Your task to perform on an android device: turn smart compose on in the gmail app Image 0: 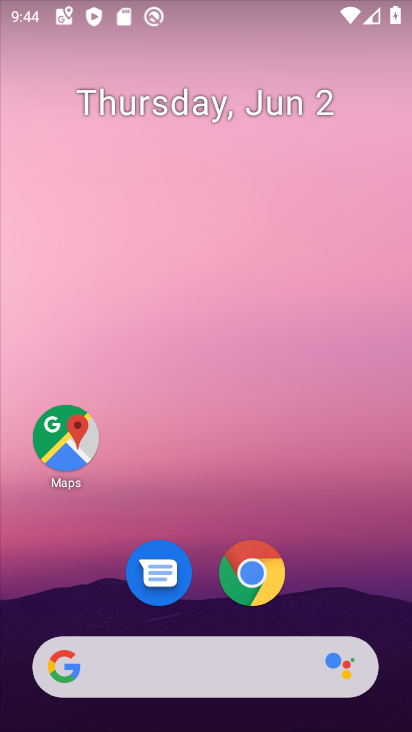
Step 0: drag from (326, 576) to (298, 75)
Your task to perform on an android device: turn smart compose on in the gmail app Image 1: 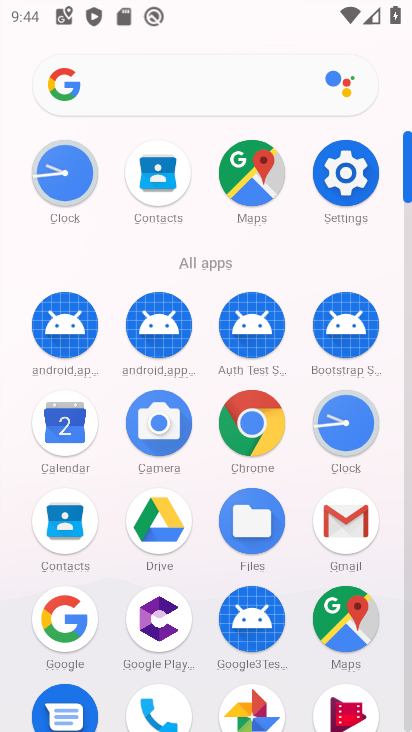
Step 1: click (348, 523)
Your task to perform on an android device: turn smart compose on in the gmail app Image 2: 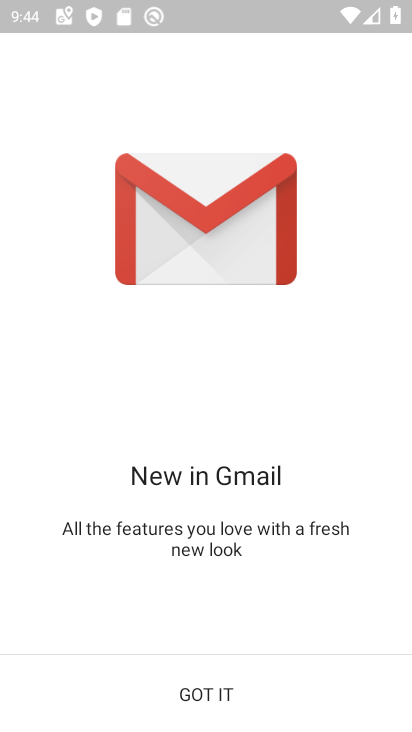
Step 2: click (232, 686)
Your task to perform on an android device: turn smart compose on in the gmail app Image 3: 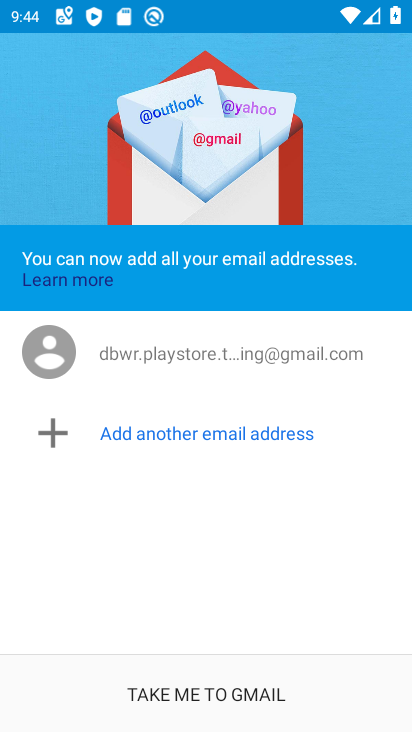
Step 3: click (230, 682)
Your task to perform on an android device: turn smart compose on in the gmail app Image 4: 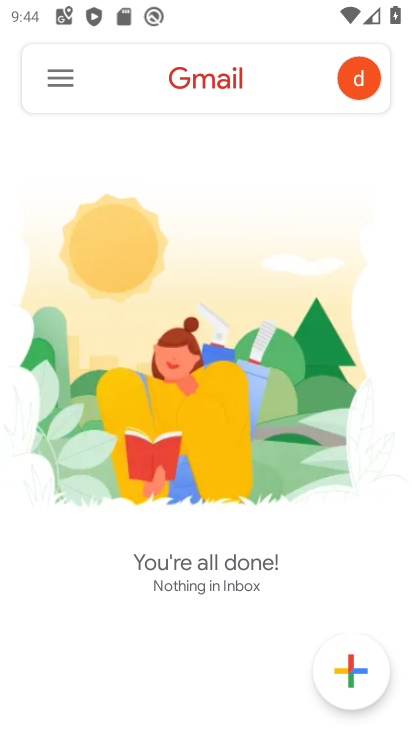
Step 4: click (67, 81)
Your task to perform on an android device: turn smart compose on in the gmail app Image 5: 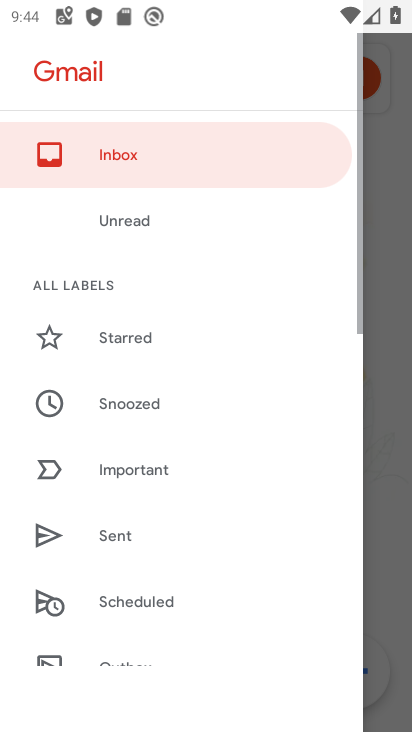
Step 5: drag from (156, 601) to (149, 166)
Your task to perform on an android device: turn smart compose on in the gmail app Image 6: 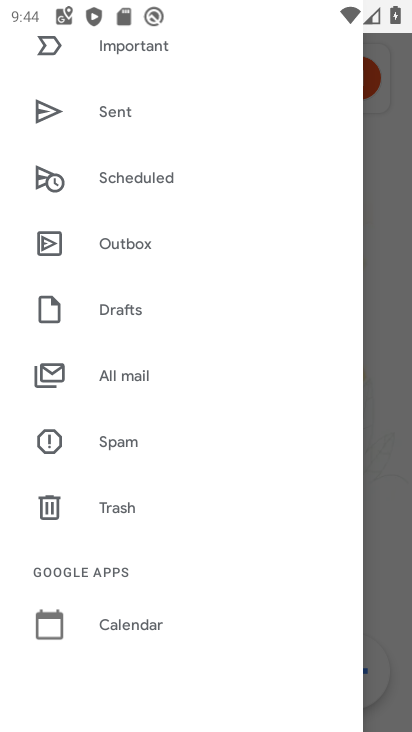
Step 6: drag from (179, 590) to (210, 223)
Your task to perform on an android device: turn smart compose on in the gmail app Image 7: 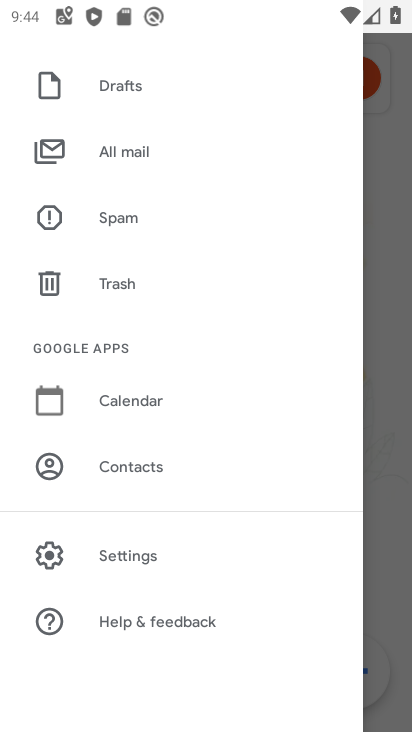
Step 7: click (135, 550)
Your task to perform on an android device: turn smart compose on in the gmail app Image 8: 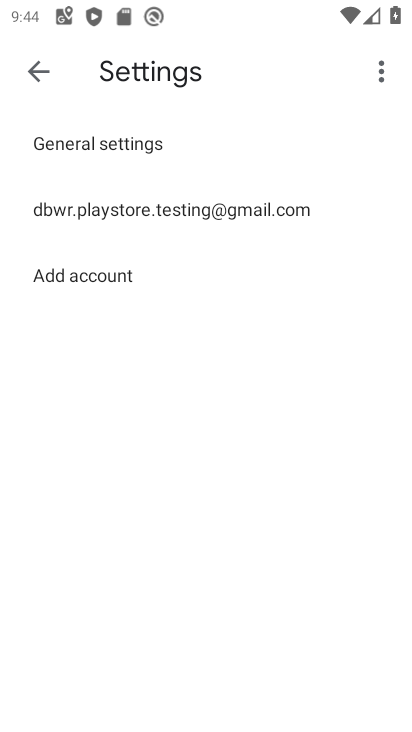
Step 8: click (189, 205)
Your task to perform on an android device: turn smart compose on in the gmail app Image 9: 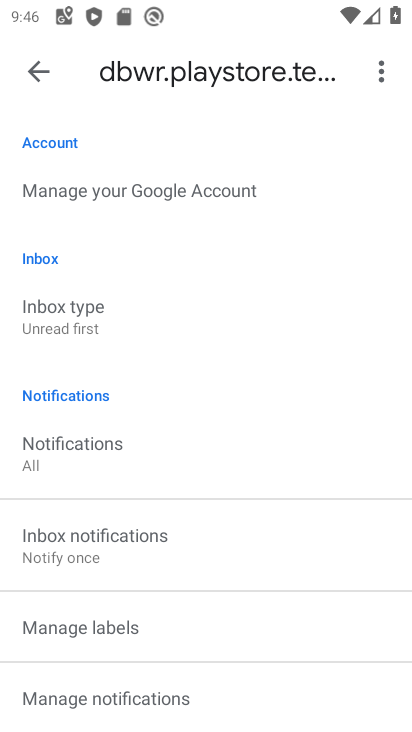
Step 9: task complete